Your task to perform on an android device: set the stopwatch Image 0: 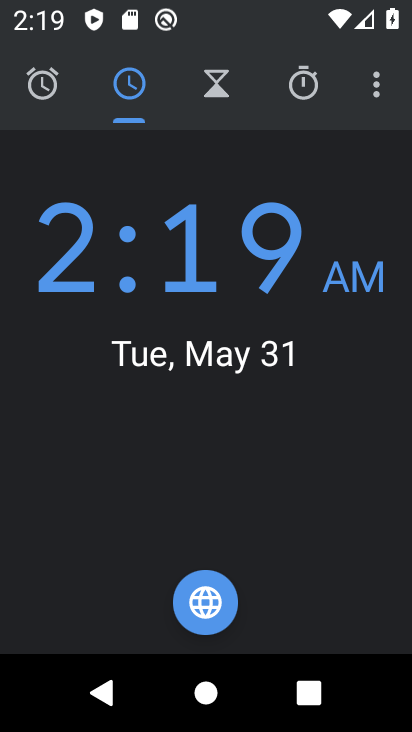
Step 0: click (295, 80)
Your task to perform on an android device: set the stopwatch Image 1: 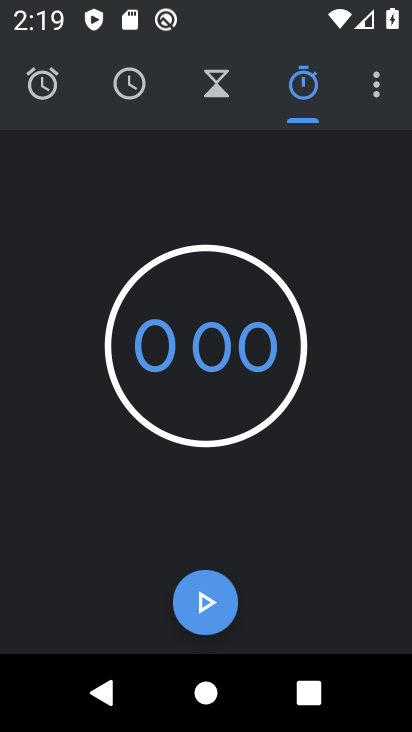
Step 1: click (220, 599)
Your task to perform on an android device: set the stopwatch Image 2: 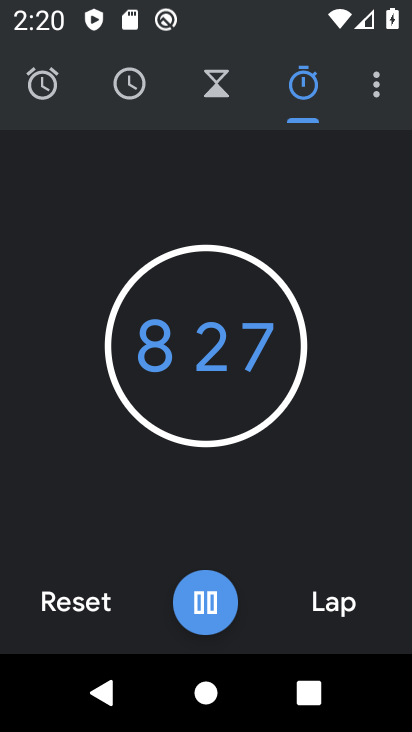
Step 2: task complete